Your task to perform on an android device: toggle translation in the chrome app Image 0: 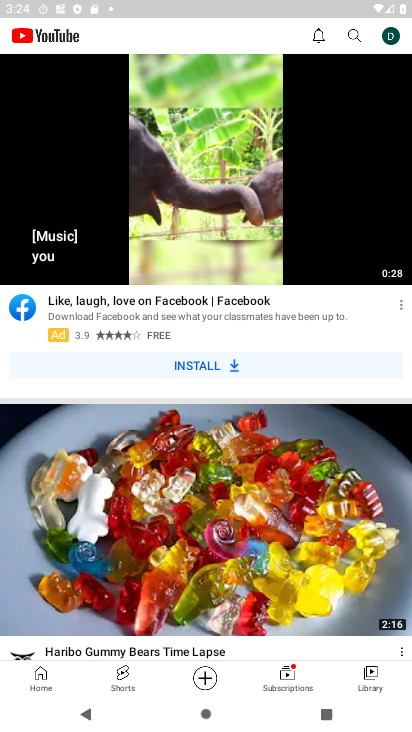
Step 0: press home button
Your task to perform on an android device: toggle translation in the chrome app Image 1: 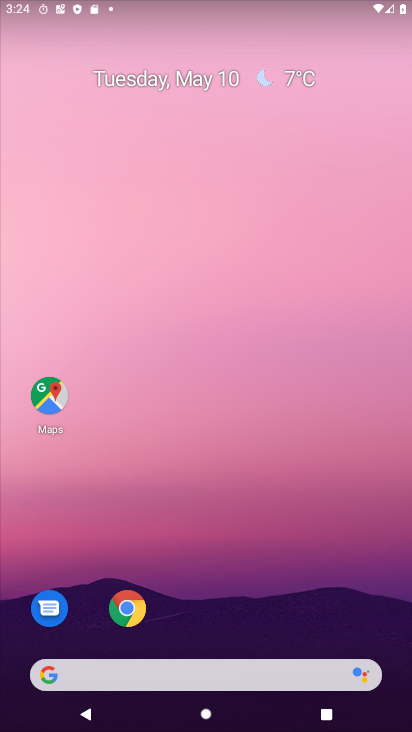
Step 1: click (130, 610)
Your task to perform on an android device: toggle translation in the chrome app Image 2: 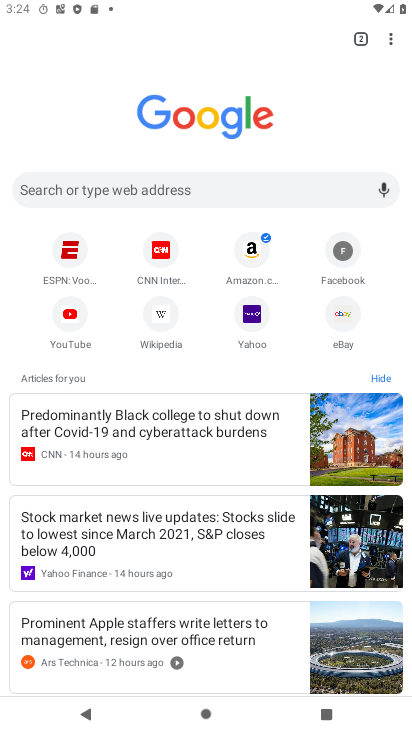
Step 2: drag from (391, 37) to (261, 324)
Your task to perform on an android device: toggle translation in the chrome app Image 3: 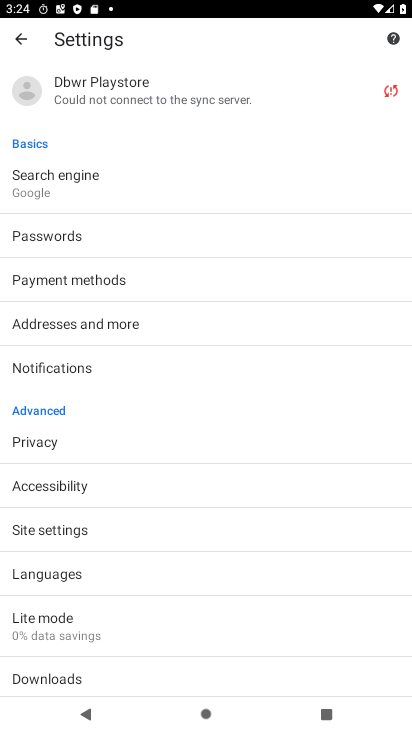
Step 3: click (46, 580)
Your task to perform on an android device: toggle translation in the chrome app Image 4: 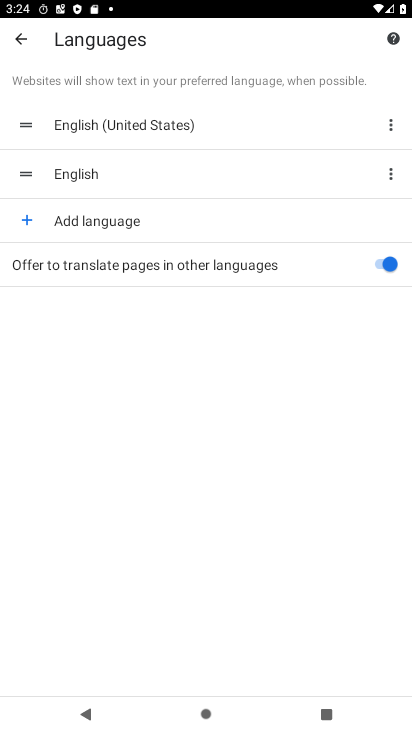
Step 4: click (380, 260)
Your task to perform on an android device: toggle translation in the chrome app Image 5: 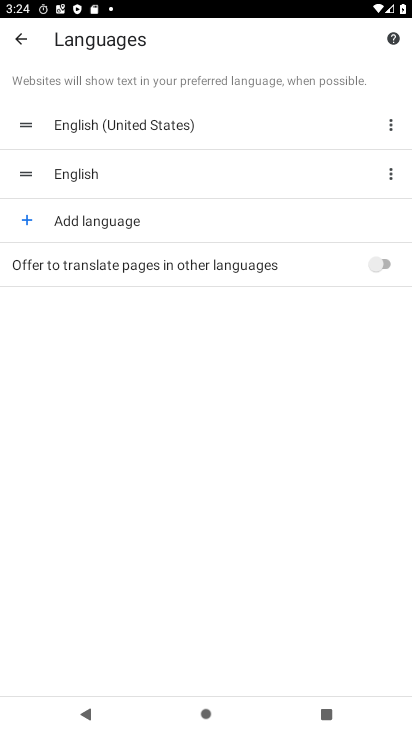
Step 5: task complete